Your task to perform on an android device: open app "Messenger Lite" (install if not already installed), go to login, and select forgot password Image 0: 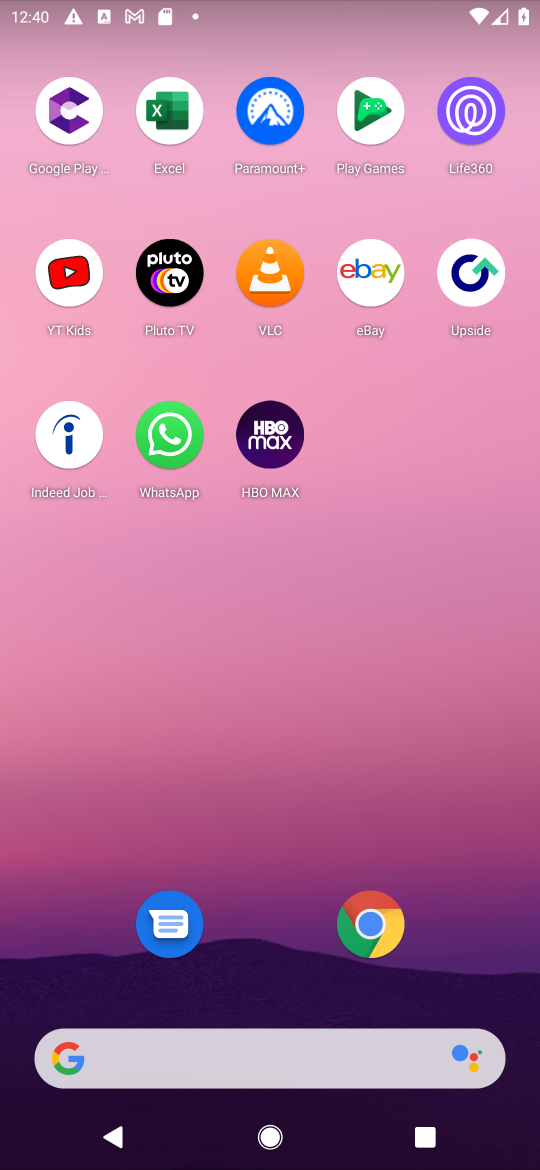
Step 0: press home button
Your task to perform on an android device: open app "Messenger Lite" (install if not already installed), go to login, and select forgot password Image 1: 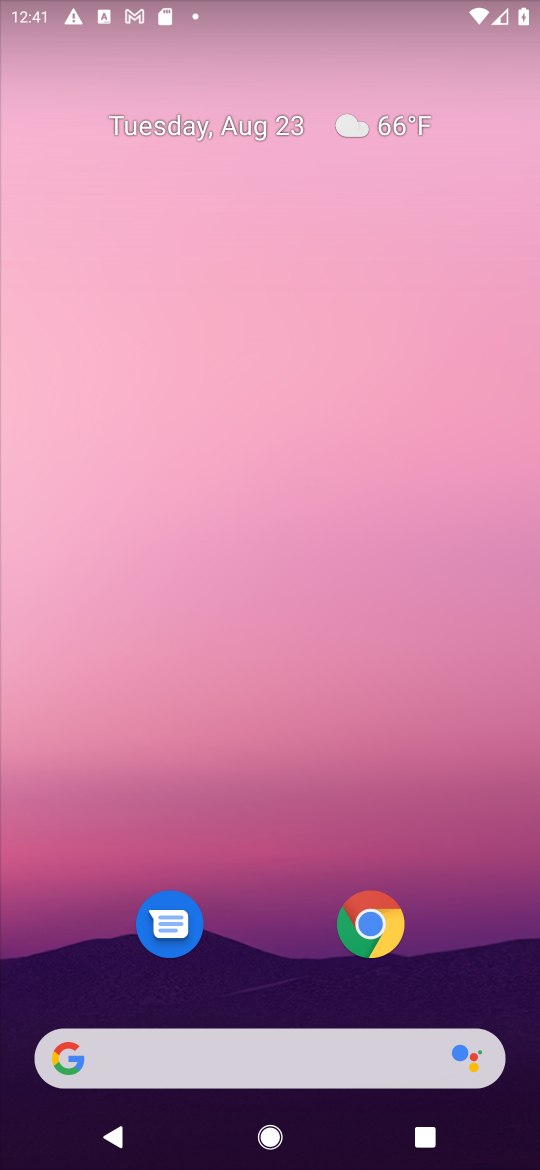
Step 1: drag from (468, 852) to (426, 161)
Your task to perform on an android device: open app "Messenger Lite" (install if not already installed), go to login, and select forgot password Image 2: 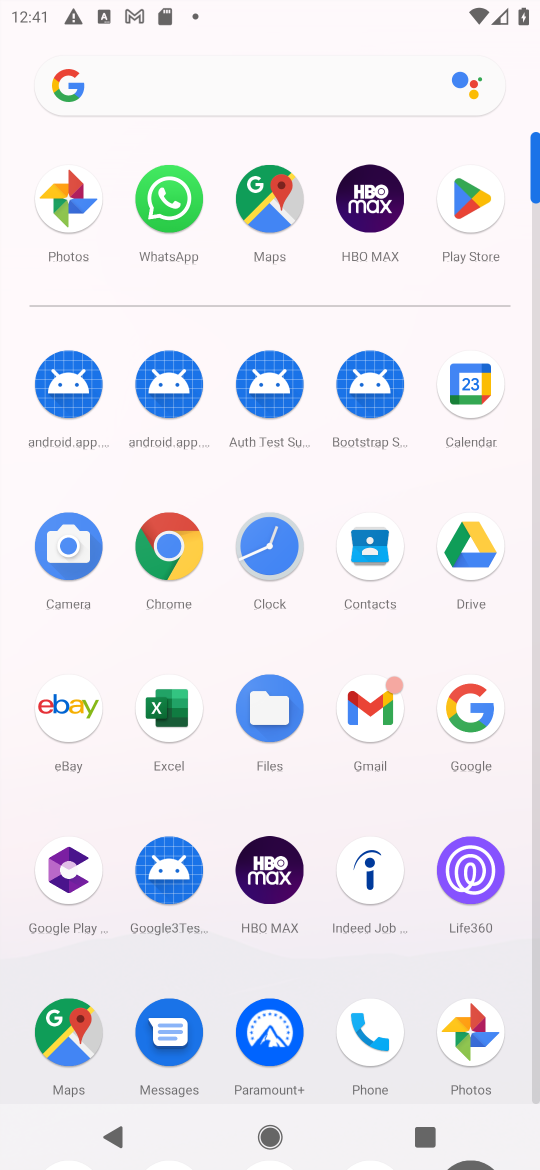
Step 2: click (467, 200)
Your task to perform on an android device: open app "Messenger Lite" (install if not already installed), go to login, and select forgot password Image 3: 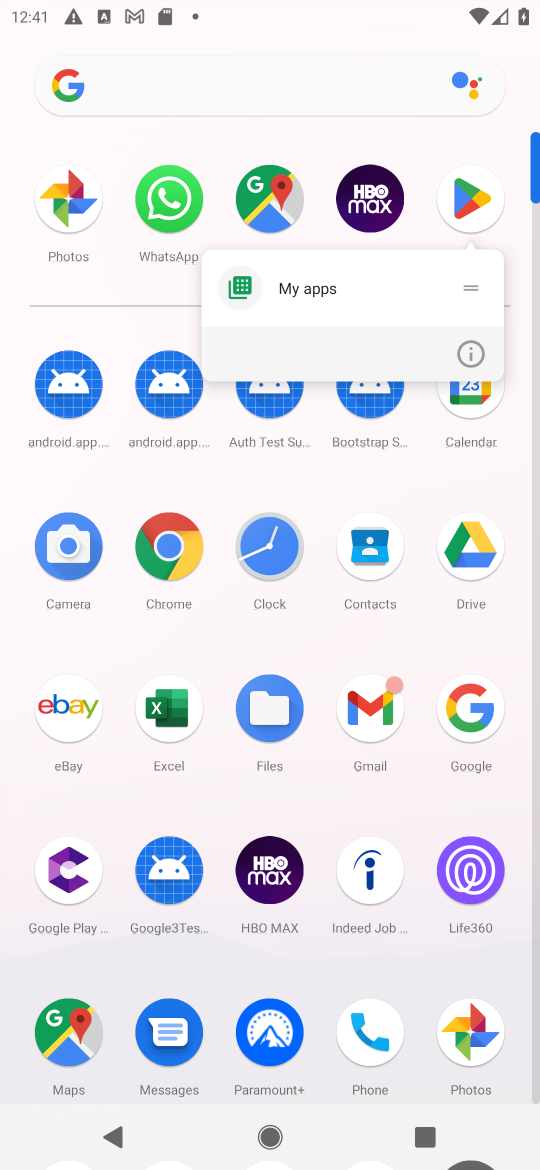
Step 3: click (464, 192)
Your task to perform on an android device: open app "Messenger Lite" (install if not already installed), go to login, and select forgot password Image 4: 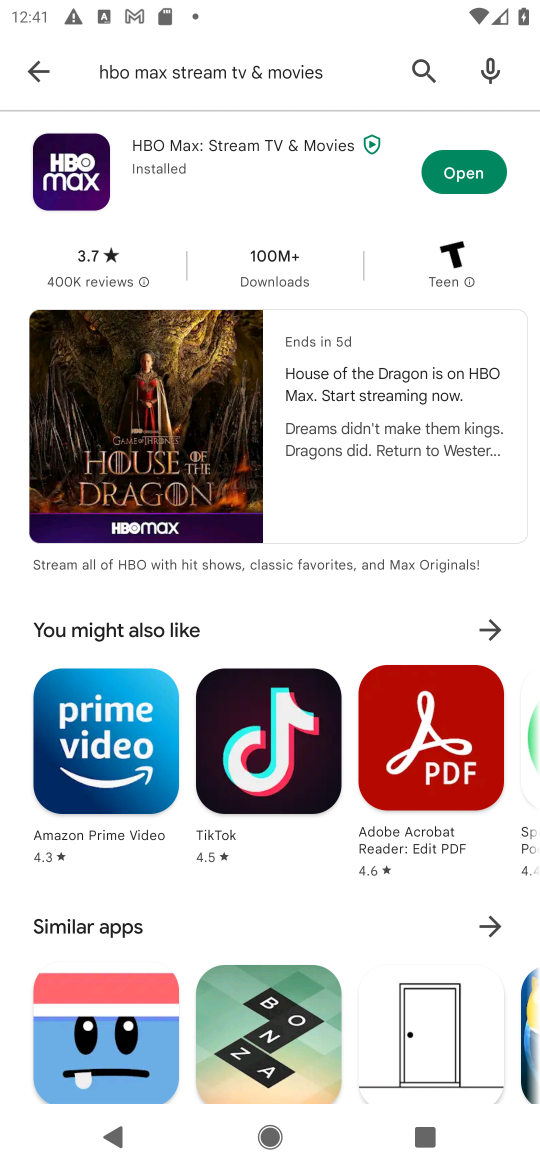
Step 4: press back button
Your task to perform on an android device: open app "Messenger Lite" (install if not already installed), go to login, and select forgot password Image 5: 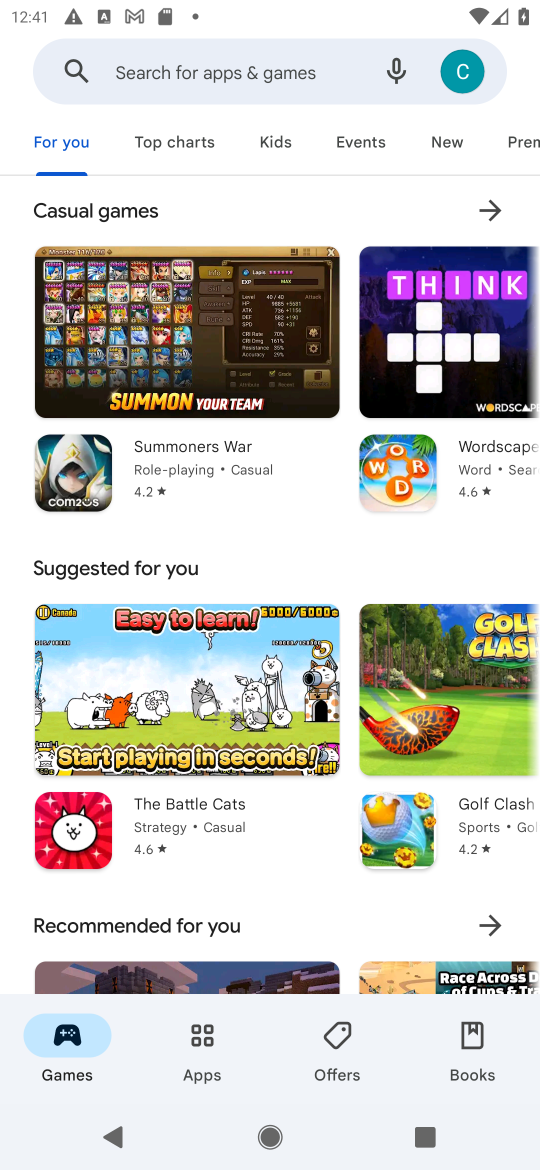
Step 5: click (220, 68)
Your task to perform on an android device: open app "Messenger Lite" (install if not already installed), go to login, and select forgot password Image 6: 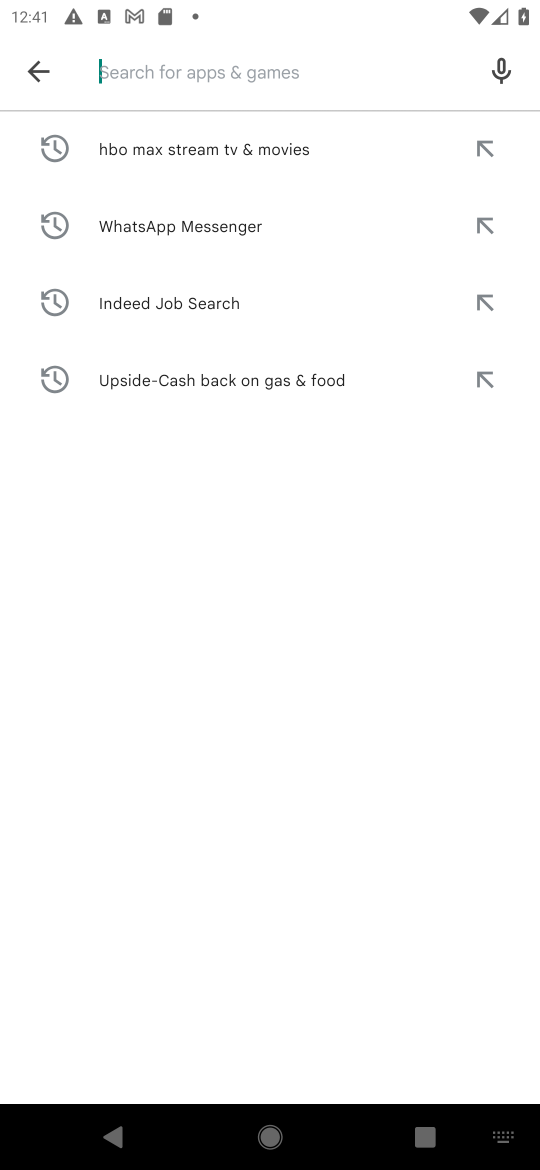
Step 6: type "Messenger Lite"
Your task to perform on an android device: open app "Messenger Lite" (install if not already installed), go to login, and select forgot password Image 7: 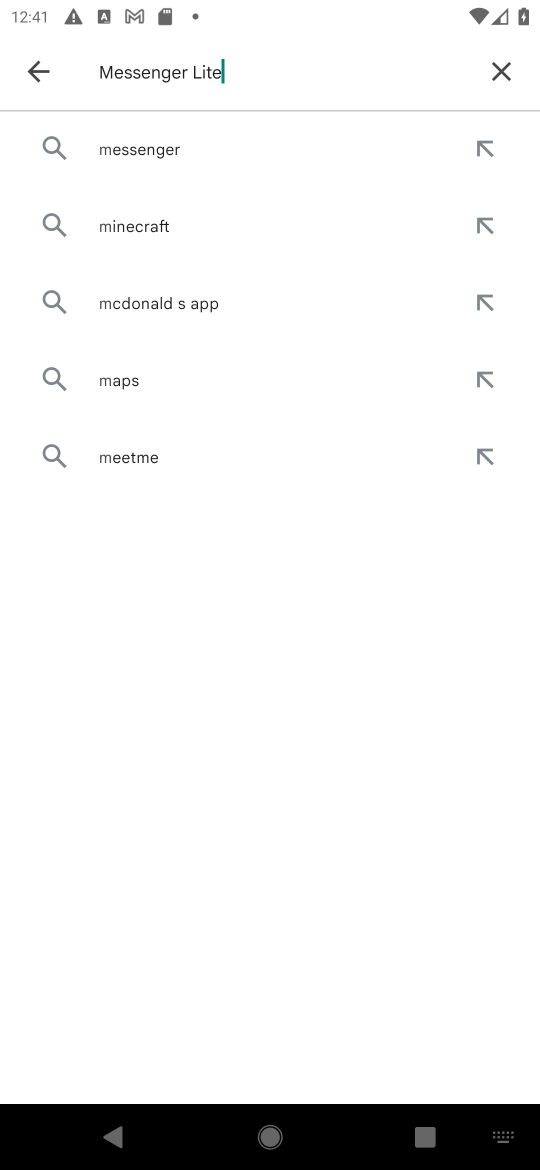
Step 7: press enter
Your task to perform on an android device: open app "Messenger Lite" (install if not already installed), go to login, and select forgot password Image 8: 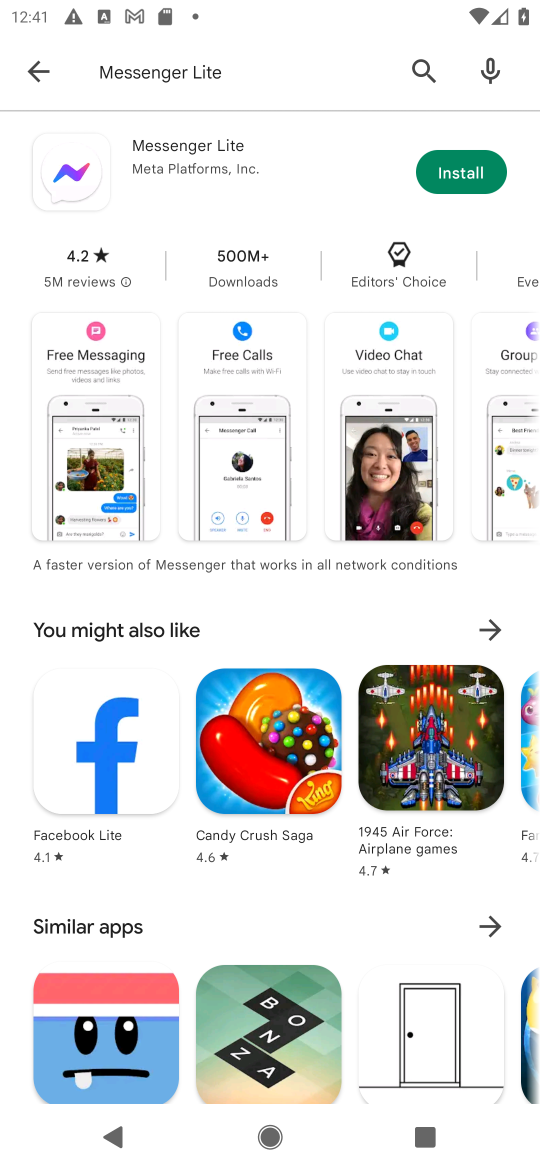
Step 8: click (462, 174)
Your task to perform on an android device: open app "Messenger Lite" (install if not already installed), go to login, and select forgot password Image 9: 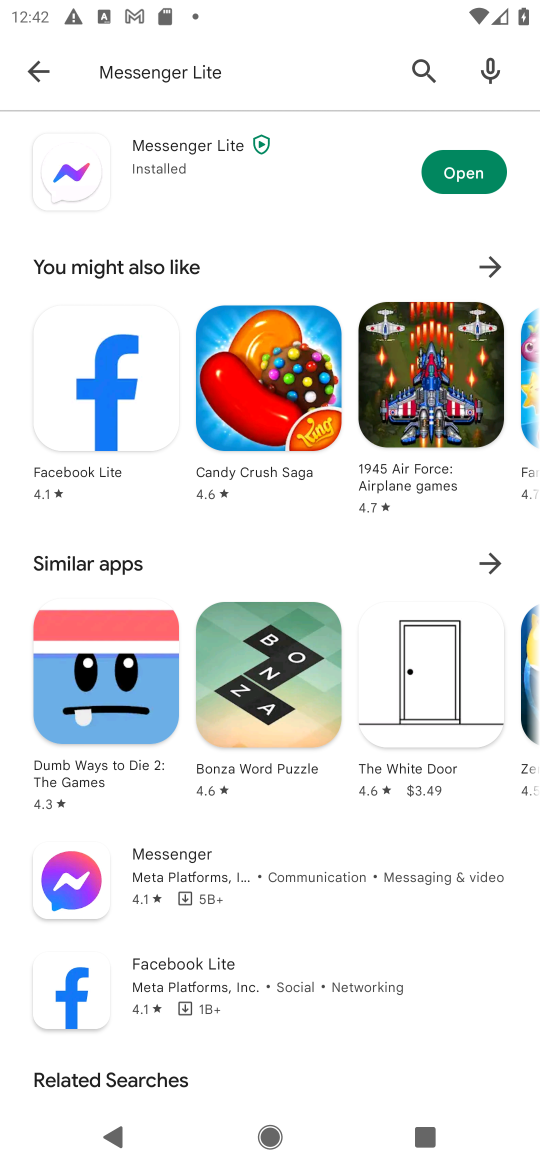
Step 9: click (458, 181)
Your task to perform on an android device: open app "Messenger Lite" (install if not already installed), go to login, and select forgot password Image 10: 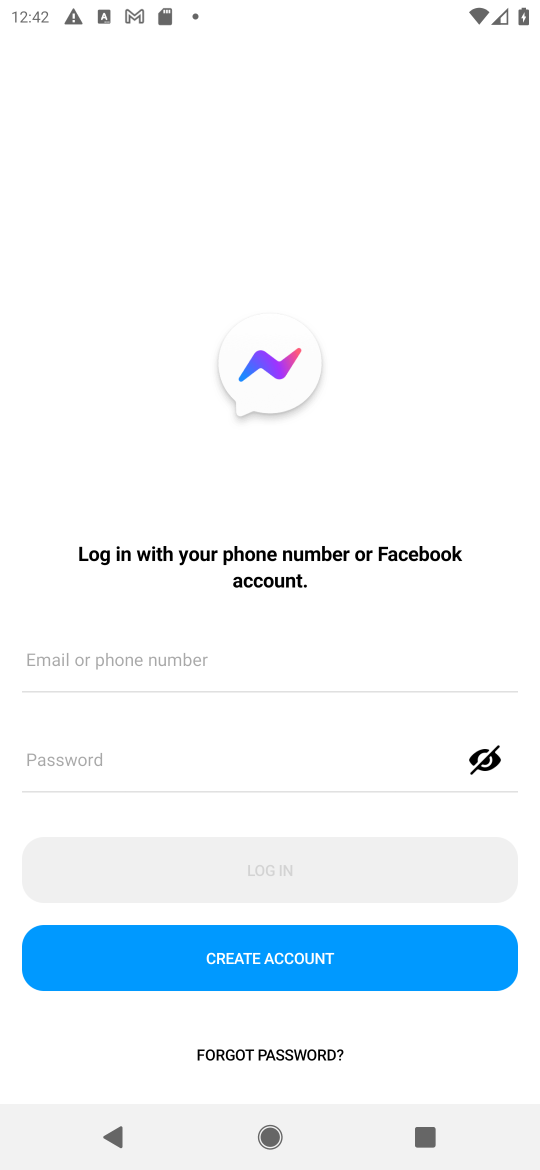
Step 10: click (276, 1057)
Your task to perform on an android device: open app "Messenger Lite" (install if not already installed), go to login, and select forgot password Image 11: 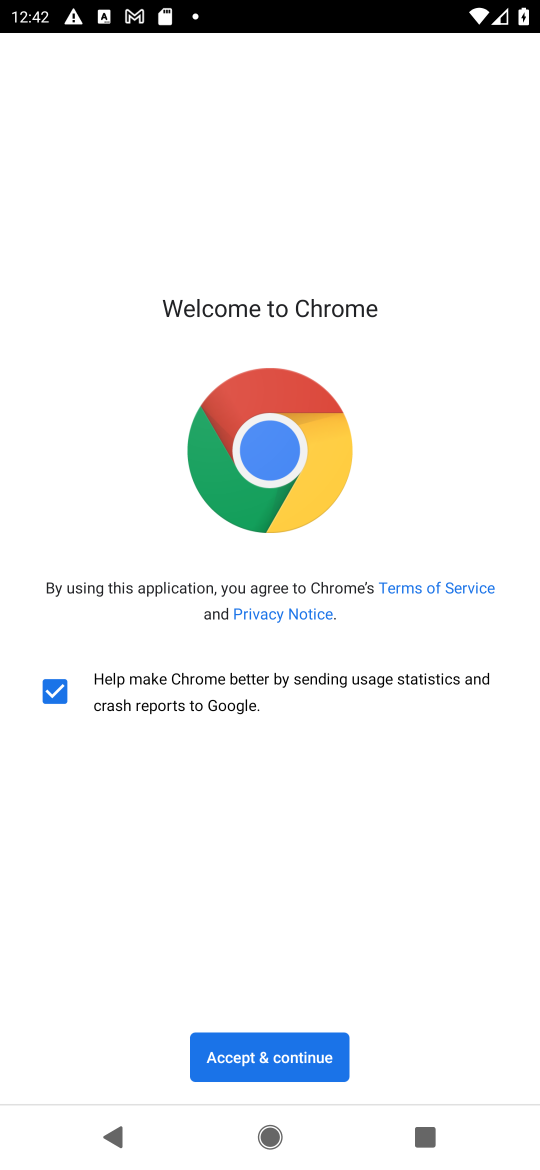
Step 11: task complete